Your task to perform on an android device: turn off priority inbox in the gmail app Image 0: 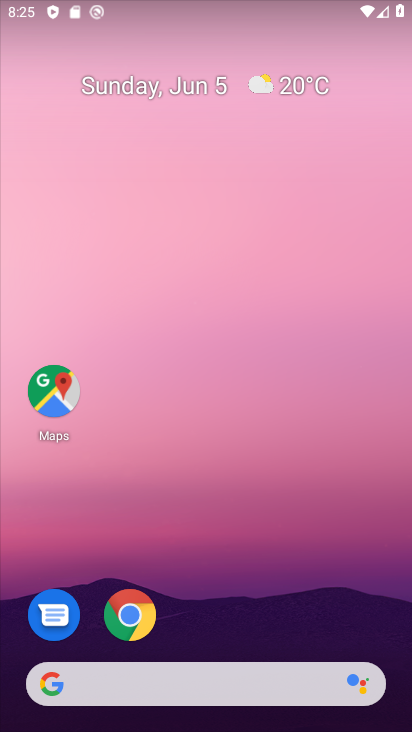
Step 0: drag from (115, 727) to (91, 111)
Your task to perform on an android device: turn off priority inbox in the gmail app Image 1: 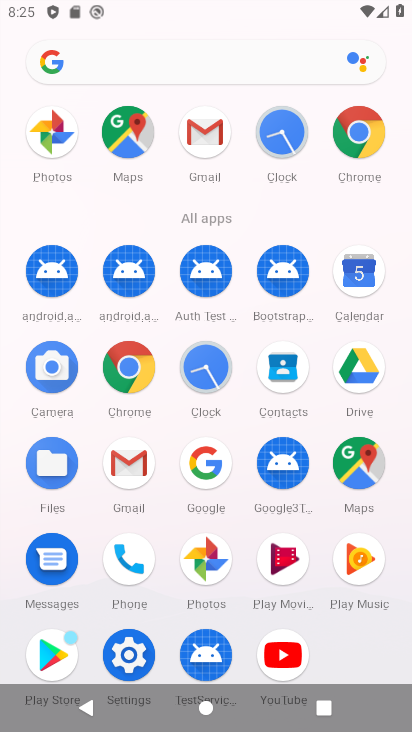
Step 1: click (145, 469)
Your task to perform on an android device: turn off priority inbox in the gmail app Image 2: 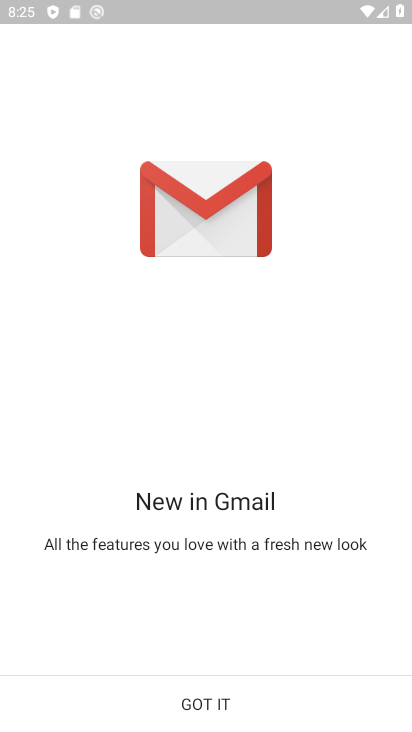
Step 2: click (209, 720)
Your task to perform on an android device: turn off priority inbox in the gmail app Image 3: 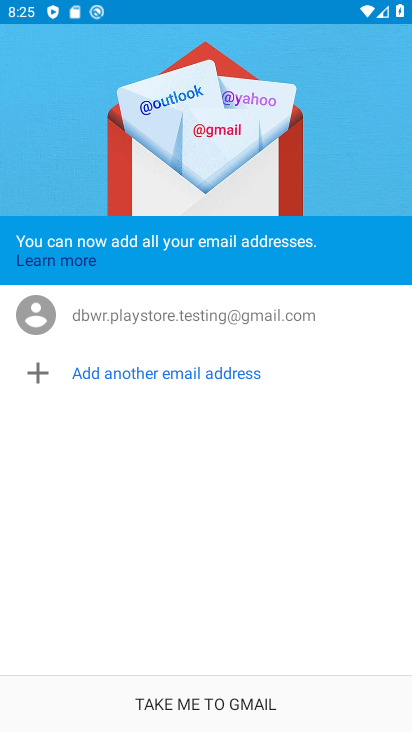
Step 3: click (212, 716)
Your task to perform on an android device: turn off priority inbox in the gmail app Image 4: 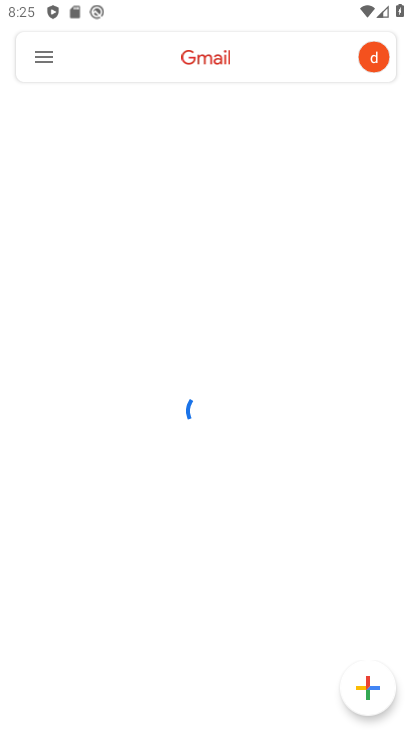
Step 4: click (49, 60)
Your task to perform on an android device: turn off priority inbox in the gmail app Image 5: 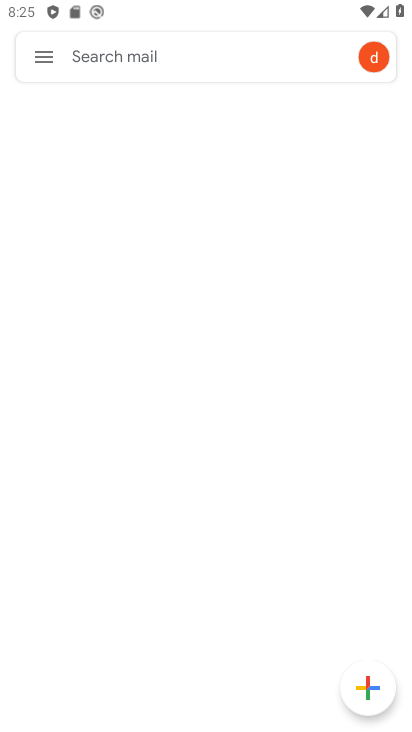
Step 5: click (95, 255)
Your task to perform on an android device: turn off priority inbox in the gmail app Image 6: 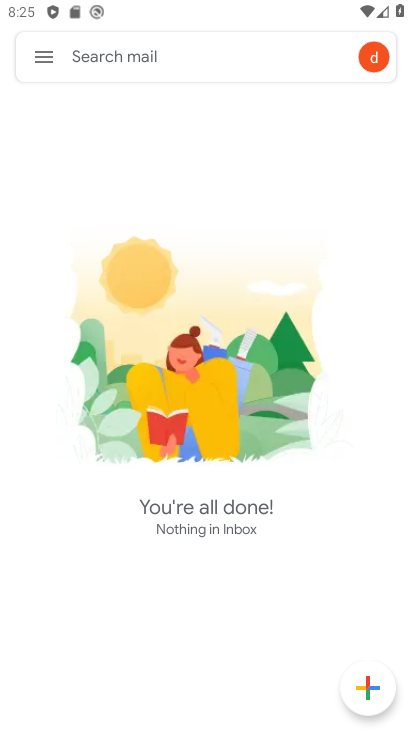
Step 6: click (52, 61)
Your task to perform on an android device: turn off priority inbox in the gmail app Image 7: 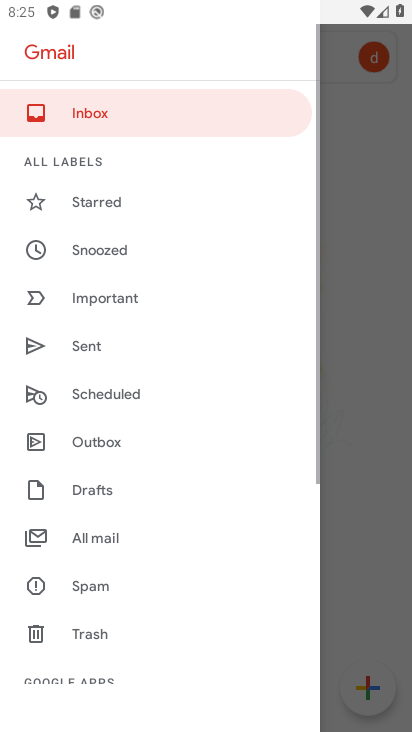
Step 7: drag from (189, 715) to (173, 366)
Your task to perform on an android device: turn off priority inbox in the gmail app Image 8: 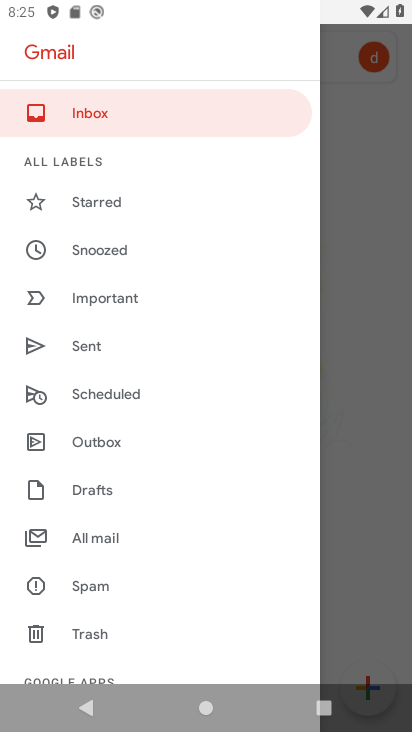
Step 8: drag from (144, 628) to (144, 233)
Your task to perform on an android device: turn off priority inbox in the gmail app Image 9: 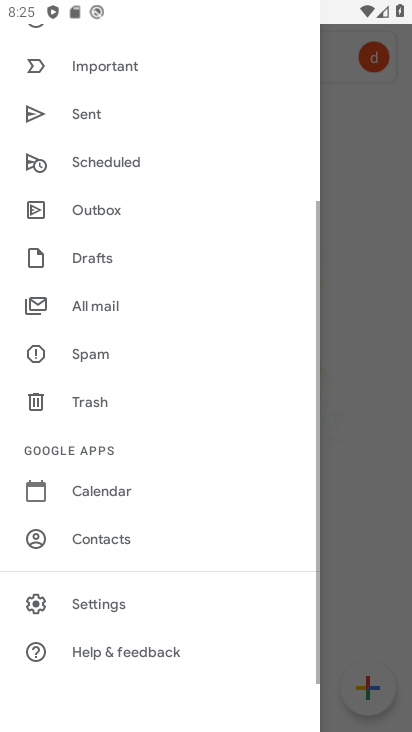
Step 9: click (96, 610)
Your task to perform on an android device: turn off priority inbox in the gmail app Image 10: 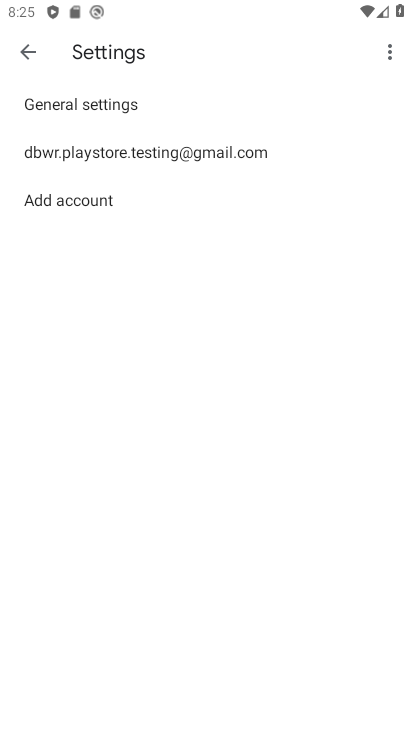
Step 10: click (126, 161)
Your task to perform on an android device: turn off priority inbox in the gmail app Image 11: 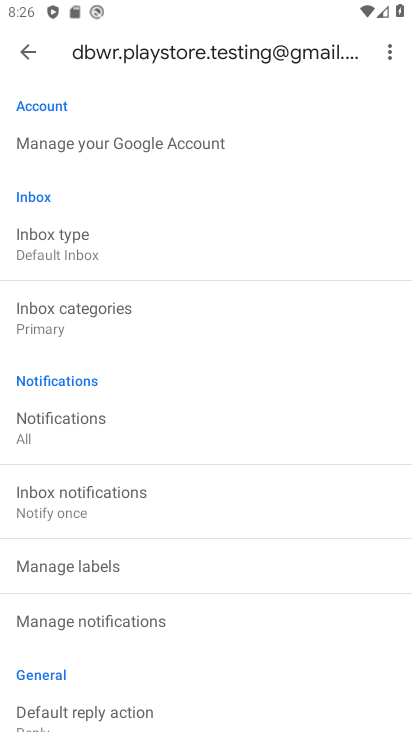
Step 11: click (85, 264)
Your task to perform on an android device: turn off priority inbox in the gmail app Image 12: 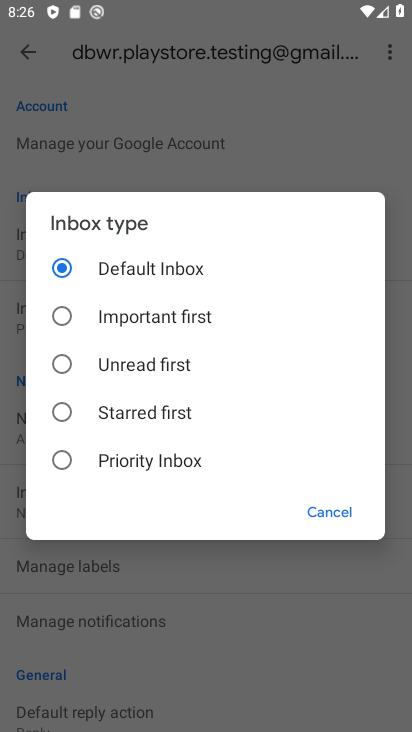
Step 12: task complete